Your task to perform on an android device: Do I have any events today? Image 0: 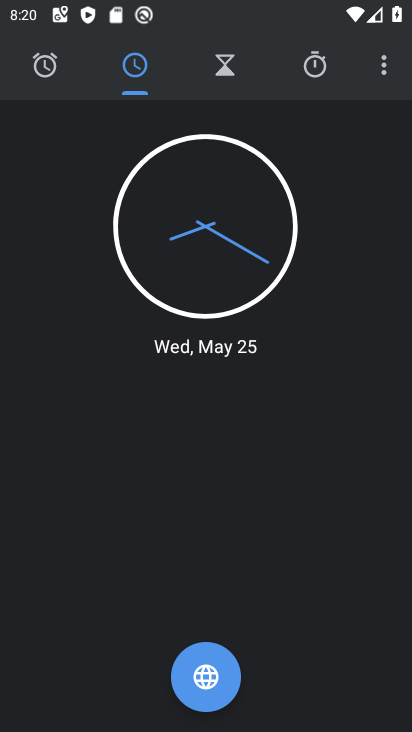
Step 0: press home button
Your task to perform on an android device: Do I have any events today? Image 1: 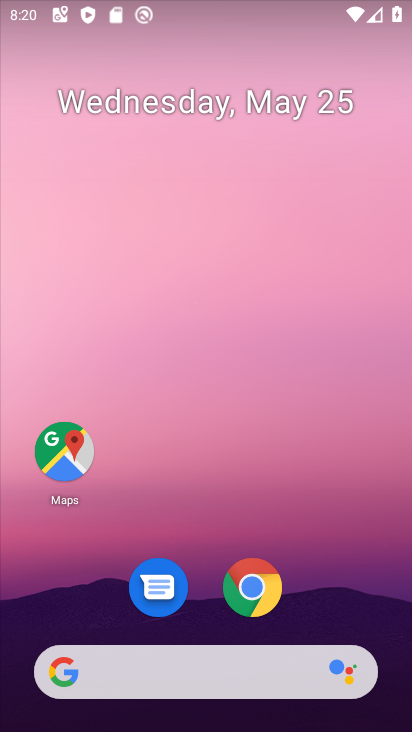
Step 1: drag from (332, 604) to (347, 108)
Your task to perform on an android device: Do I have any events today? Image 2: 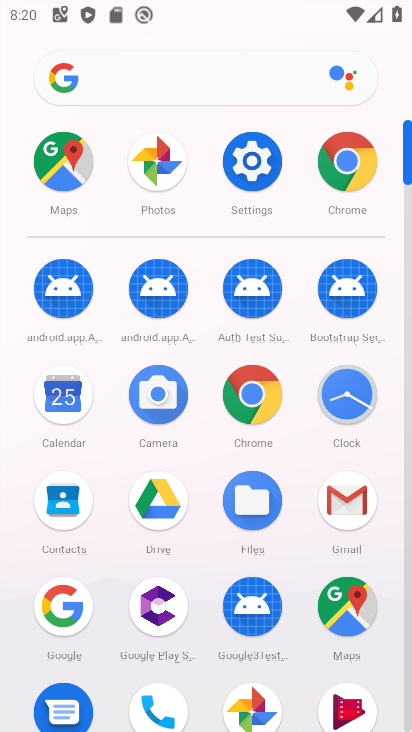
Step 2: click (58, 388)
Your task to perform on an android device: Do I have any events today? Image 3: 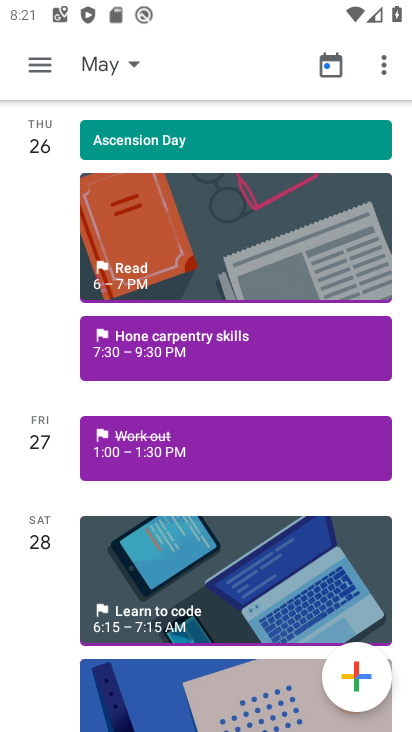
Step 3: task complete